Your task to perform on an android device: Set the phone to "Do not disturb". Image 0: 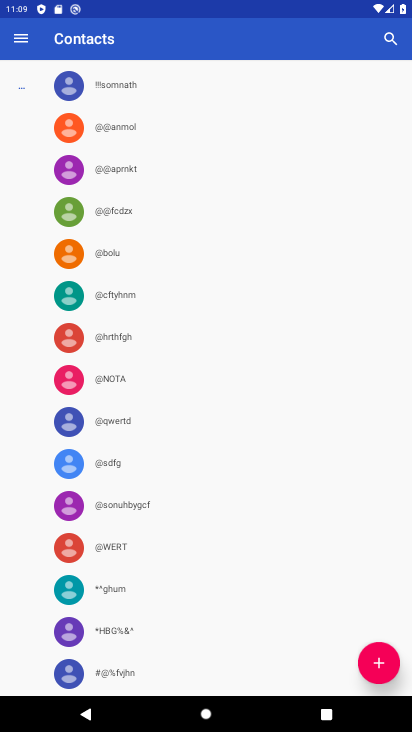
Step 0: drag from (290, 10) to (296, 295)
Your task to perform on an android device: Set the phone to "Do not disturb". Image 1: 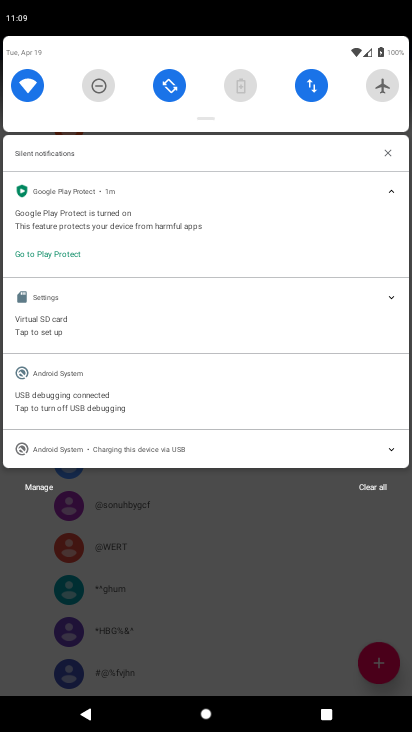
Step 1: press home button
Your task to perform on an android device: Set the phone to "Do not disturb". Image 2: 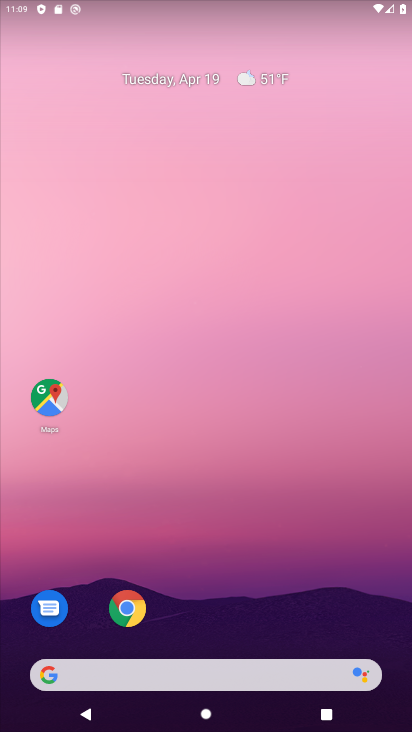
Step 2: drag from (218, 210) to (220, 310)
Your task to perform on an android device: Set the phone to "Do not disturb". Image 3: 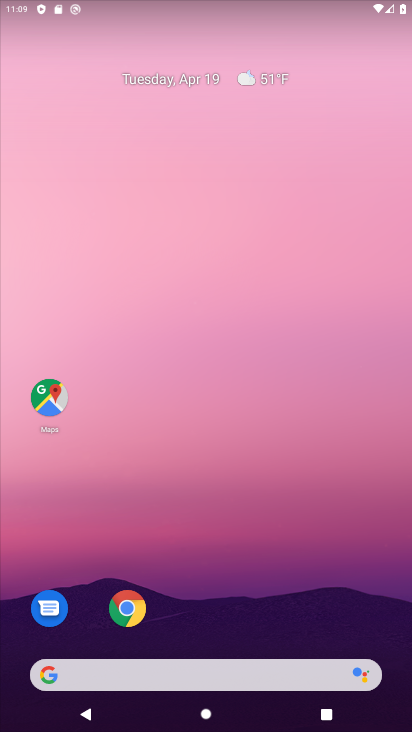
Step 3: drag from (203, 0) to (205, 319)
Your task to perform on an android device: Set the phone to "Do not disturb". Image 4: 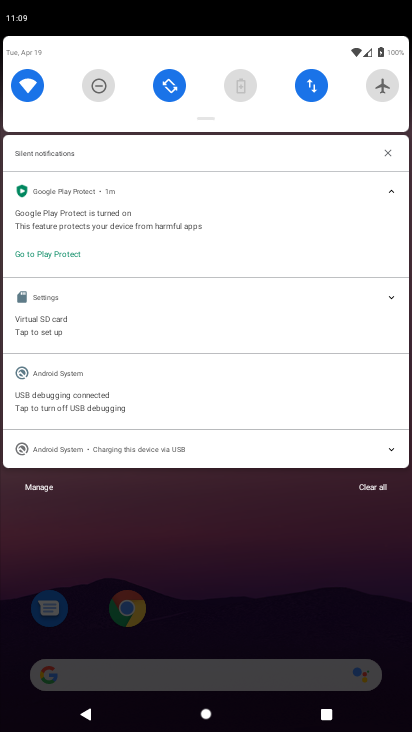
Step 4: click (88, 94)
Your task to perform on an android device: Set the phone to "Do not disturb". Image 5: 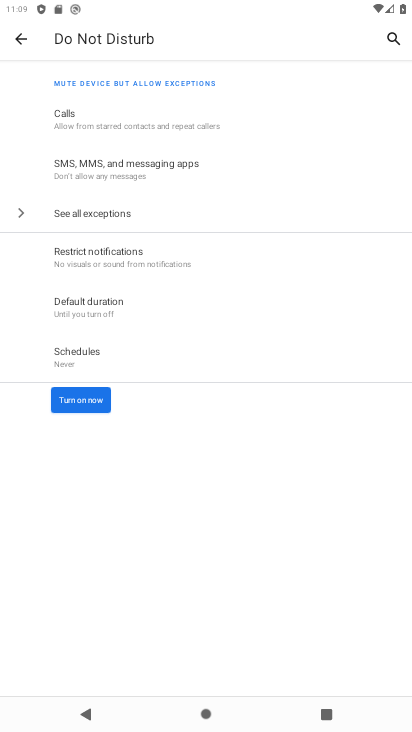
Step 5: task complete